Your task to perform on an android device: turn off notifications in google photos Image 0: 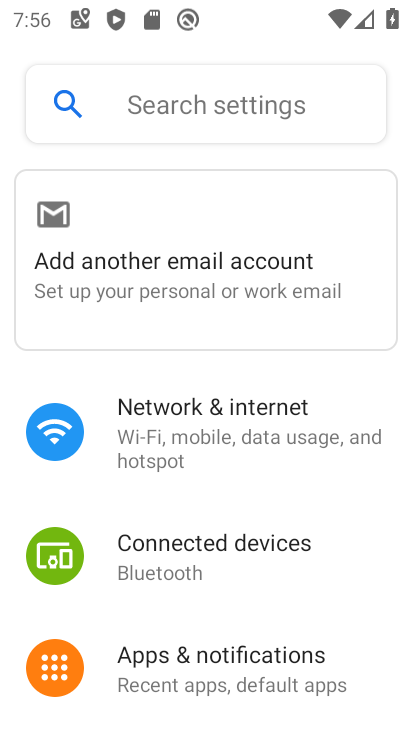
Step 0: drag from (166, 583) to (200, 356)
Your task to perform on an android device: turn off notifications in google photos Image 1: 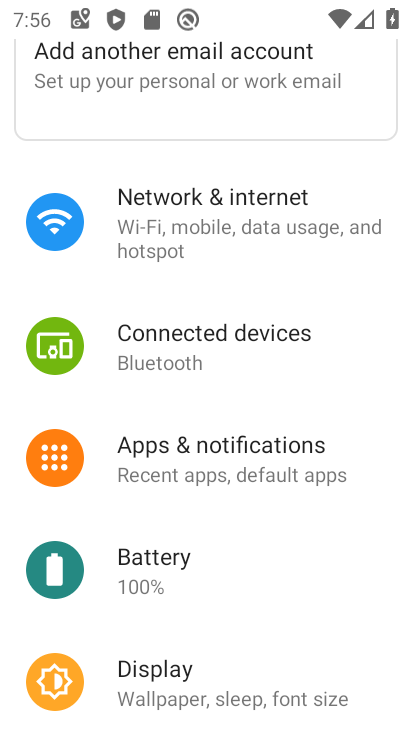
Step 1: click (215, 444)
Your task to perform on an android device: turn off notifications in google photos Image 2: 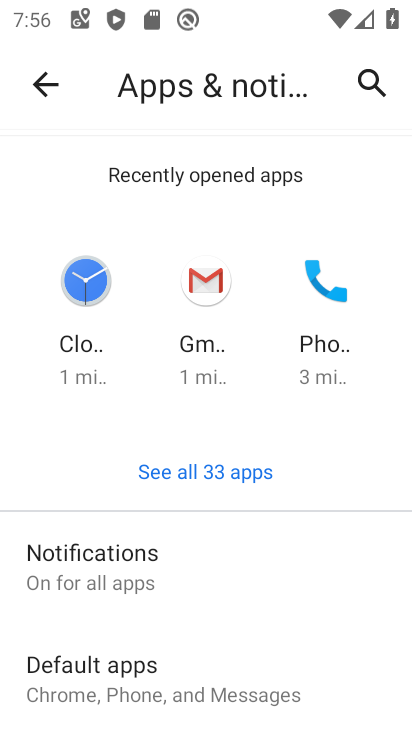
Step 2: drag from (178, 608) to (210, 206)
Your task to perform on an android device: turn off notifications in google photos Image 3: 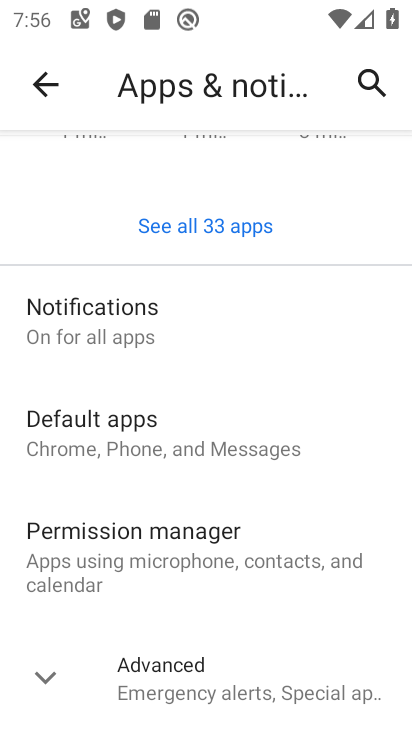
Step 3: click (61, 341)
Your task to perform on an android device: turn off notifications in google photos Image 4: 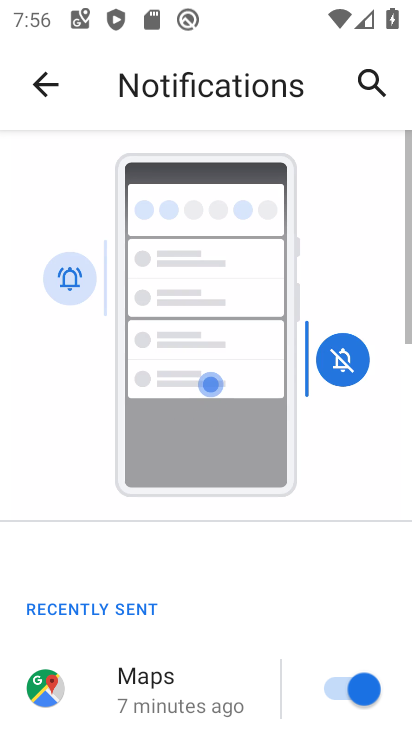
Step 4: drag from (221, 711) to (253, 223)
Your task to perform on an android device: turn off notifications in google photos Image 5: 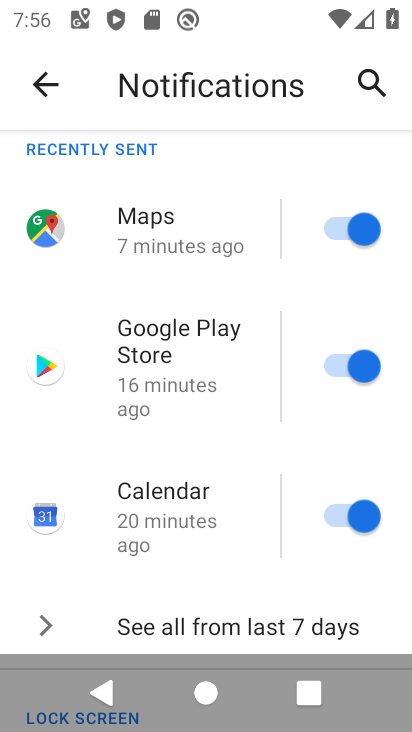
Step 5: drag from (276, 512) to (342, 105)
Your task to perform on an android device: turn off notifications in google photos Image 6: 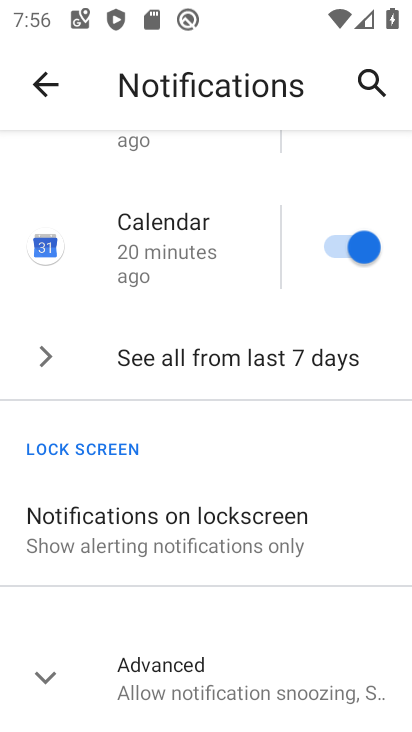
Step 6: click (141, 671)
Your task to perform on an android device: turn off notifications in google photos Image 7: 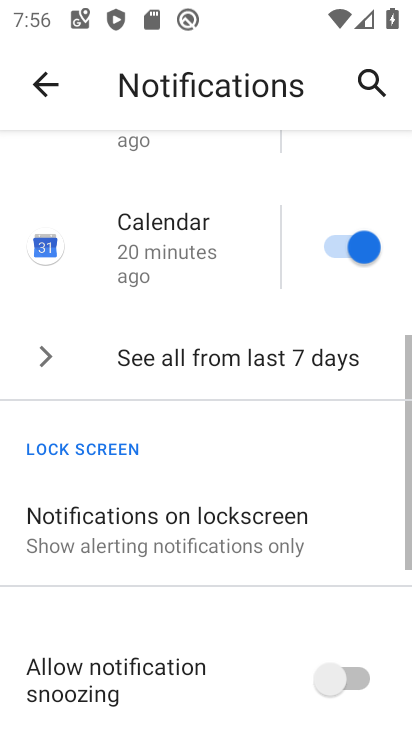
Step 7: drag from (162, 616) to (203, 569)
Your task to perform on an android device: turn off notifications in google photos Image 8: 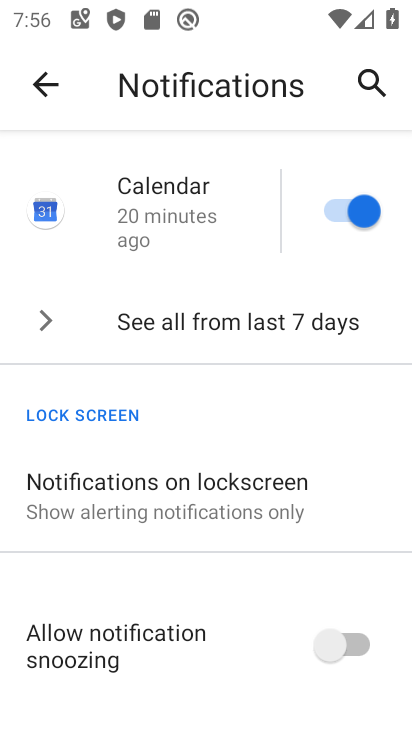
Step 8: drag from (144, 192) to (208, 565)
Your task to perform on an android device: turn off notifications in google photos Image 9: 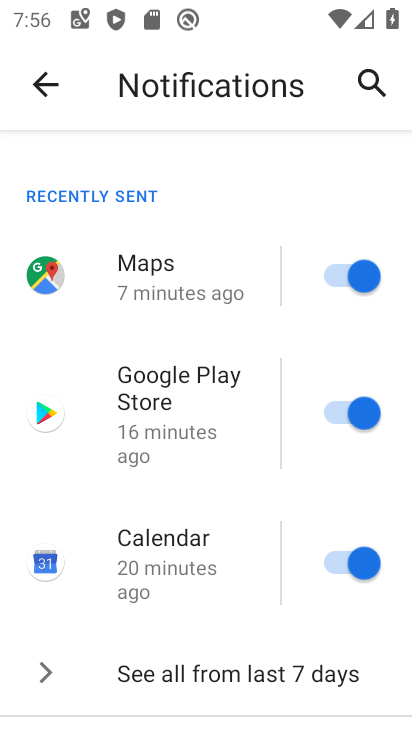
Step 9: click (48, 94)
Your task to perform on an android device: turn off notifications in google photos Image 10: 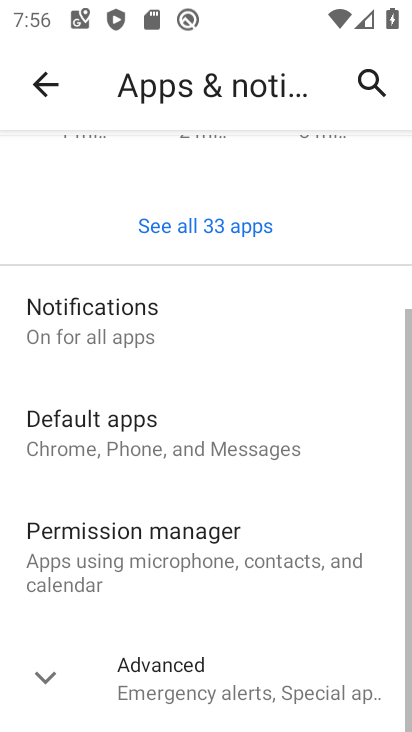
Step 10: drag from (157, 225) to (209, 571)
Your task to perform on an android device: turn off notifications in google photos Image 11: 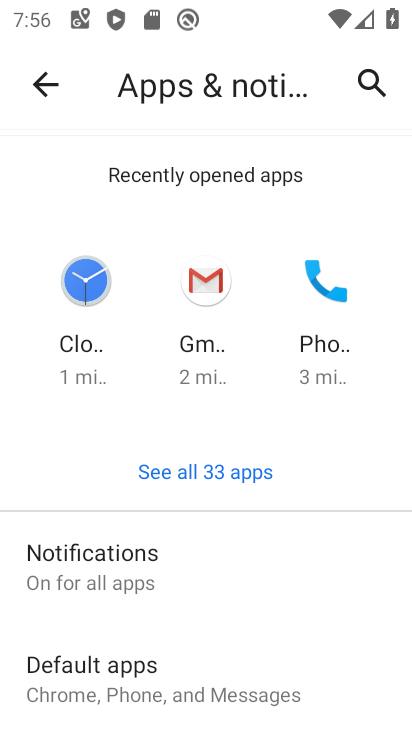
Step 11: click (204, 439)
Your task to perform on an android device: turn off notifications in google photos Image 12: 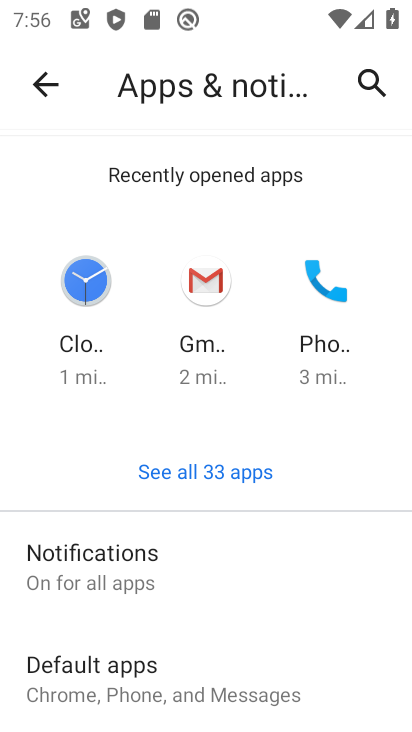
Step 12: click (202, 464)
Your task to perform on an android device: turn off notifications in google photos Image 13: 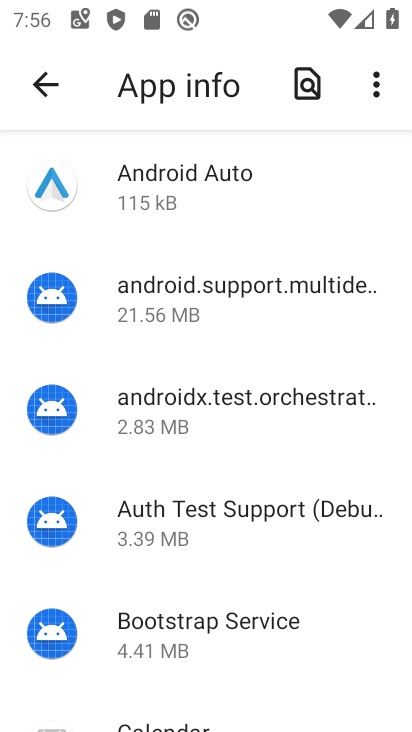
Step 13: drag from (208, 558) to (244, 23)
Your task to perform on an android device: turn off notifications in google photos Image 14: 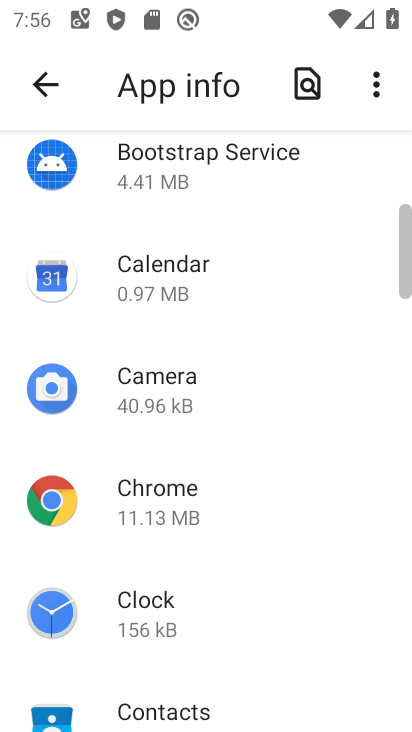
Step 14: drag from (194, 548) to (261, 153)
Your task to perform on an android device: turn off notifications in google photos Image 15: 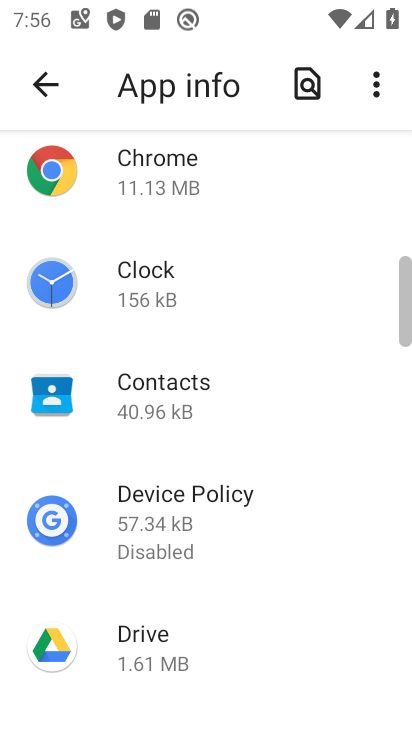
Step 15: drag from (223, 610) to (233, 243)
Your task to perform on an android device: turn off notifications in google photos Image 16: 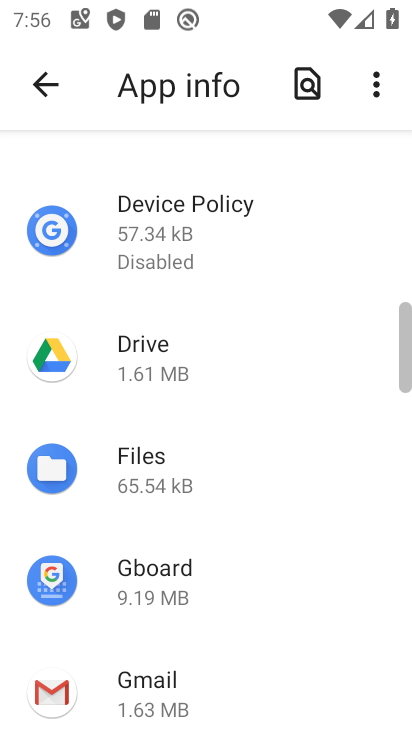
Step 16: drag from (178, 693) to (214, 284)
Your task to perform on an android device: turn off notifications in google photos Image 17: 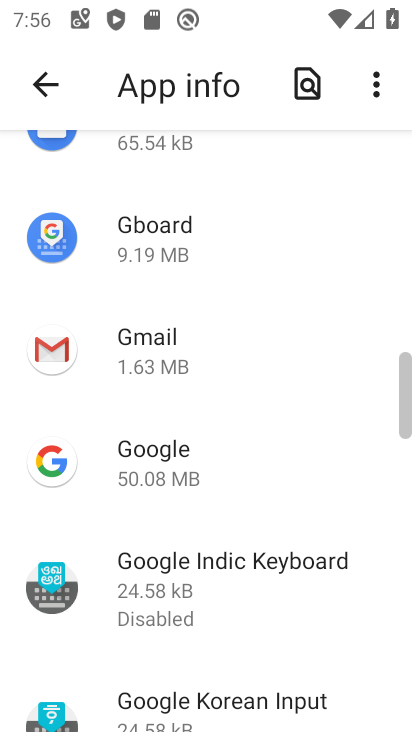
Step 17: drag from (176, 641) to (224, 189)
Your task to perform on an android device: turn off notifications in google photos Image 18: 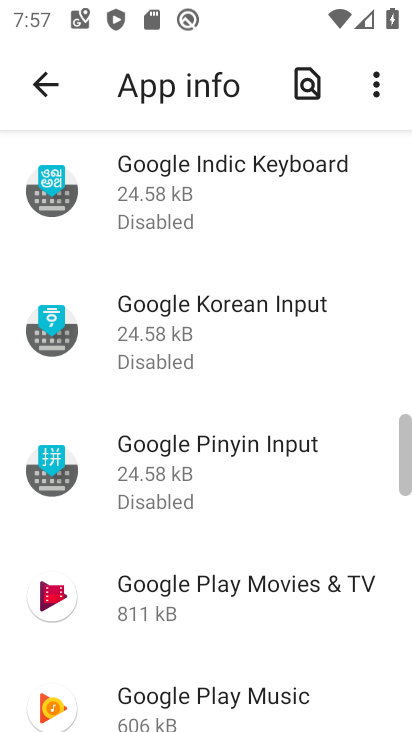
Step 18: drag from (133, 656) to (229, 204)
Your task to perform on an android device: turn off notifications in google photos Image 19: 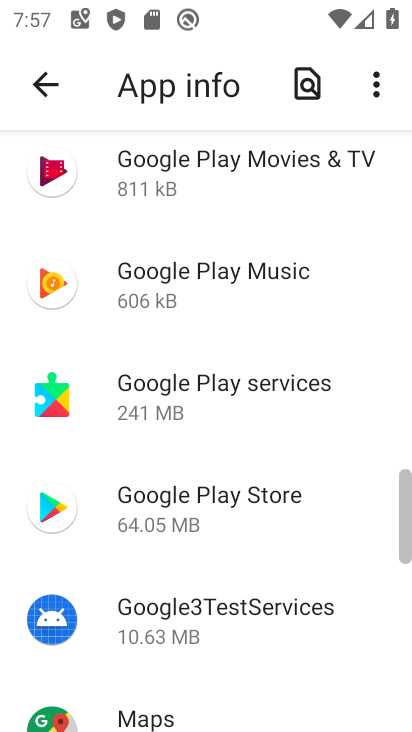
Step 19: drag from (207, 587) to (173, 137)
Your task to perform on an android device: turn off notifications in google photos Image 20: 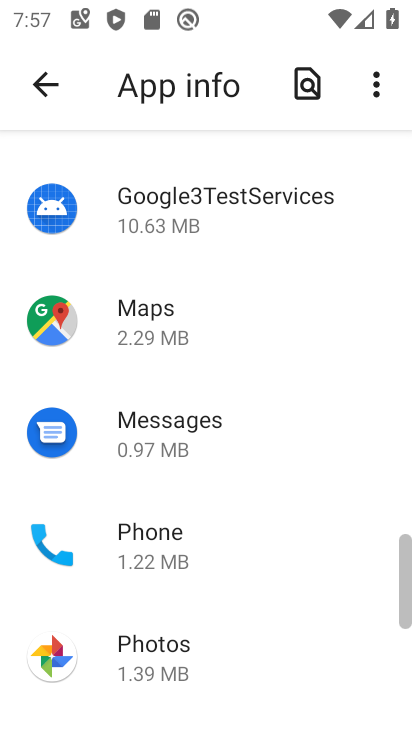
Step 20: click (173, 137)
Your task to perform on an android device: turn off notifications in google photos Image 21: 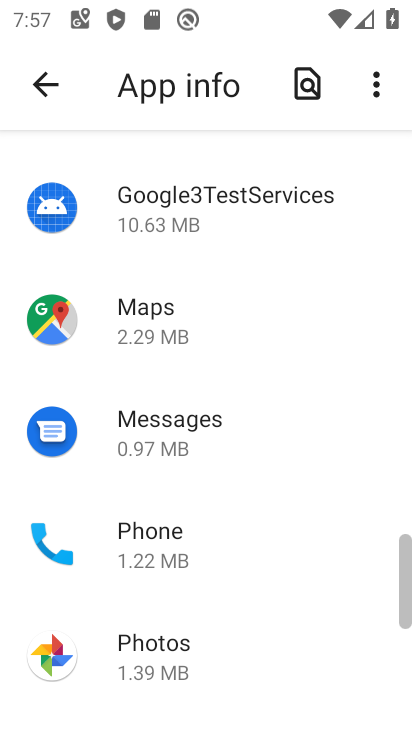
Step 21: drag from (132, 637) to (194, 445)
Your task to perform on an android device: turn off notifications in google photos Image 22: 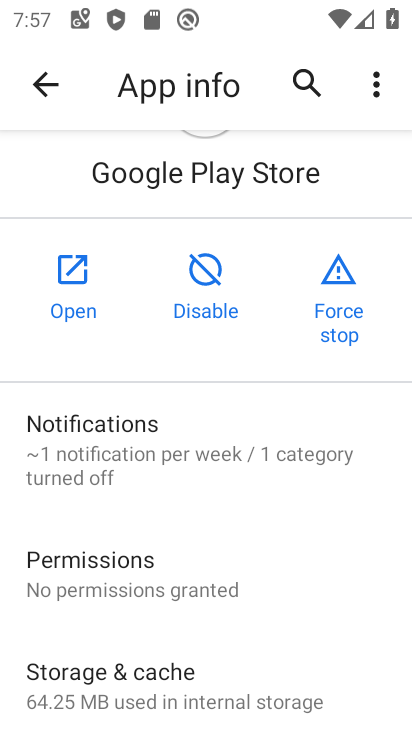
Step 22: click (47, 76)
Your task to perform on an android device: turn off notifications in google photos Image 23: 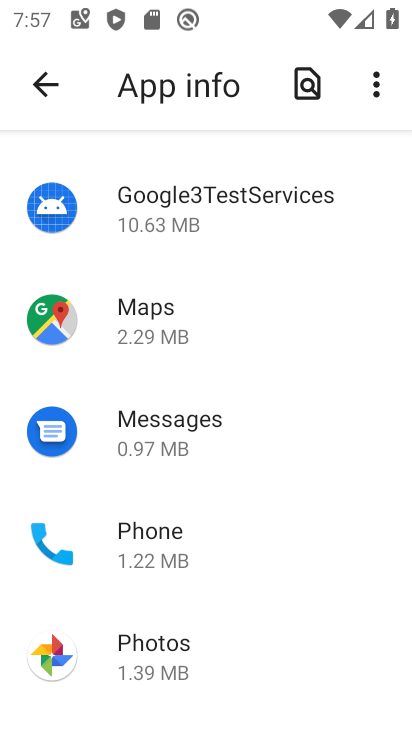
Step 23: click (127, 659)
Your task to perform on an android device: turn off notifications in google photos Image 24: 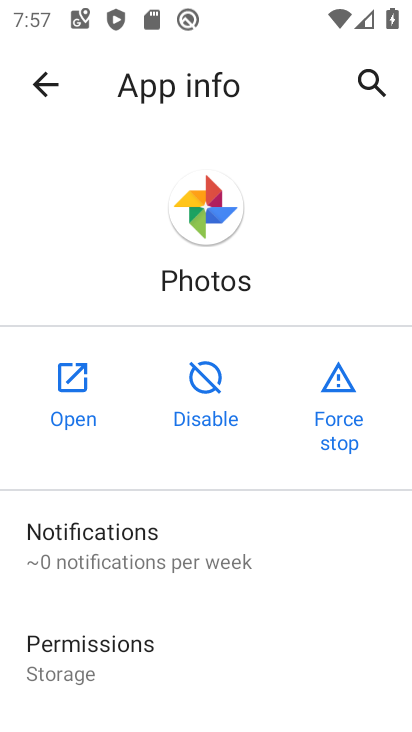
Step 24: drag from (197, 480) to (158, 130)
Your task to perform on an android device: turn off notifications in google photos Image 25: 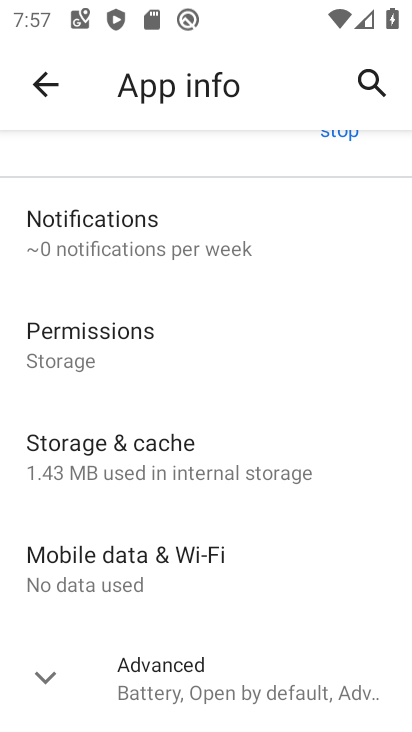
Step 25: click (167, 217)
Your task to perform on an android device: turn off notifications in google photos Image 26: 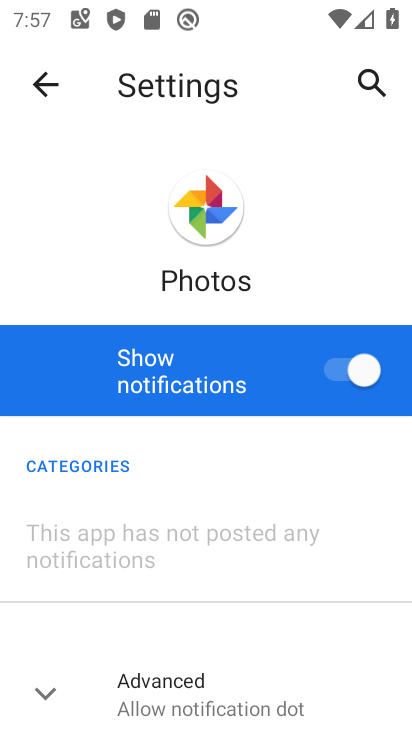
Step 26: click (349, 374)
Your task to perform on an android device: turn off notifications in google photos Image 27: 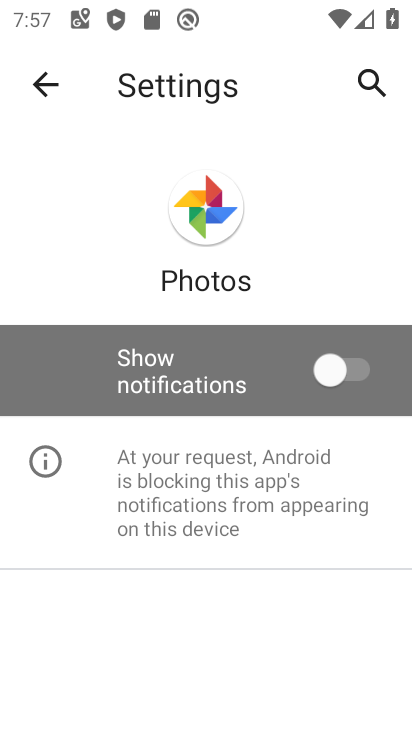
Step 27: task complete